Your task to perform on an android device: open app "Facebook Messenger" (install if not already installed) Image 0: 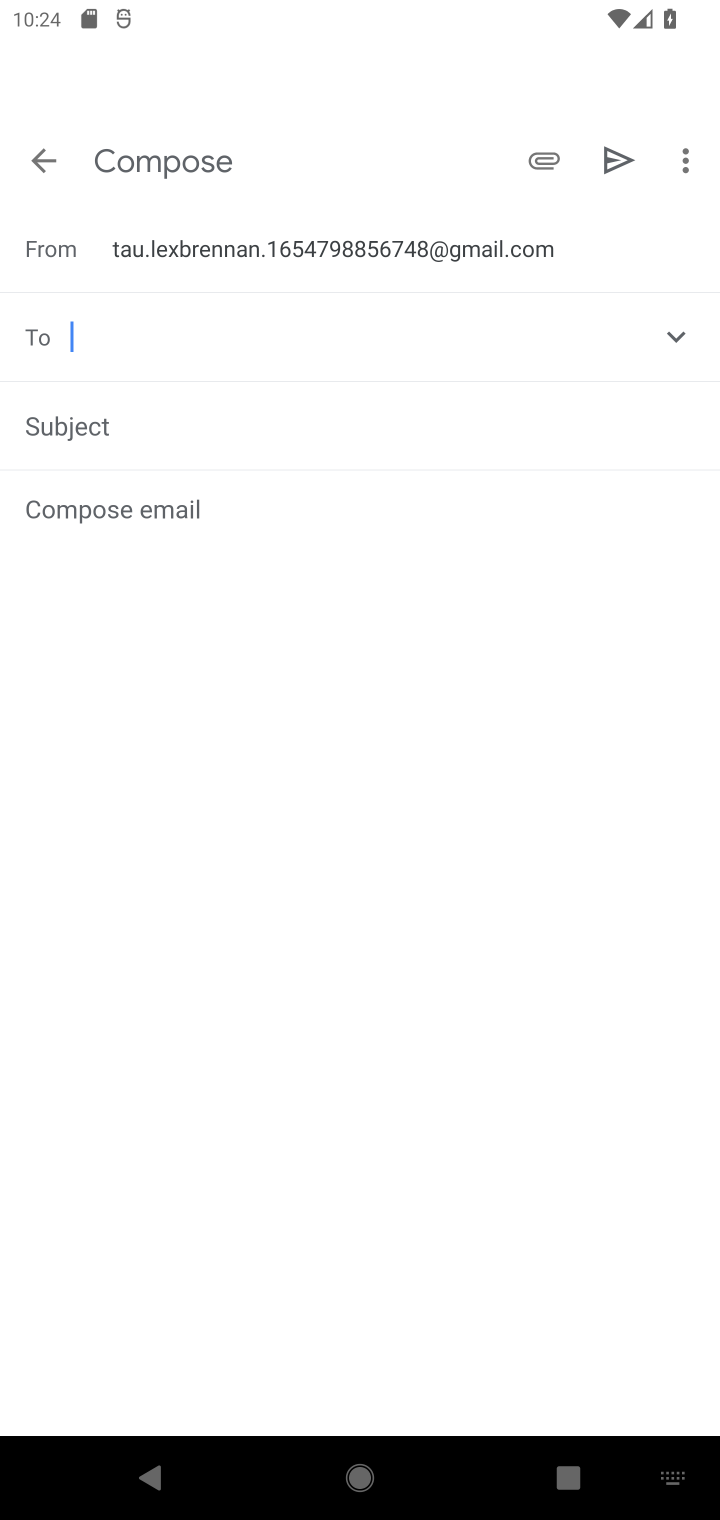
Step 0: press home button
Your task to perform on an android device: open app "Facebook Messenger" (install if not already installed) Image 1: 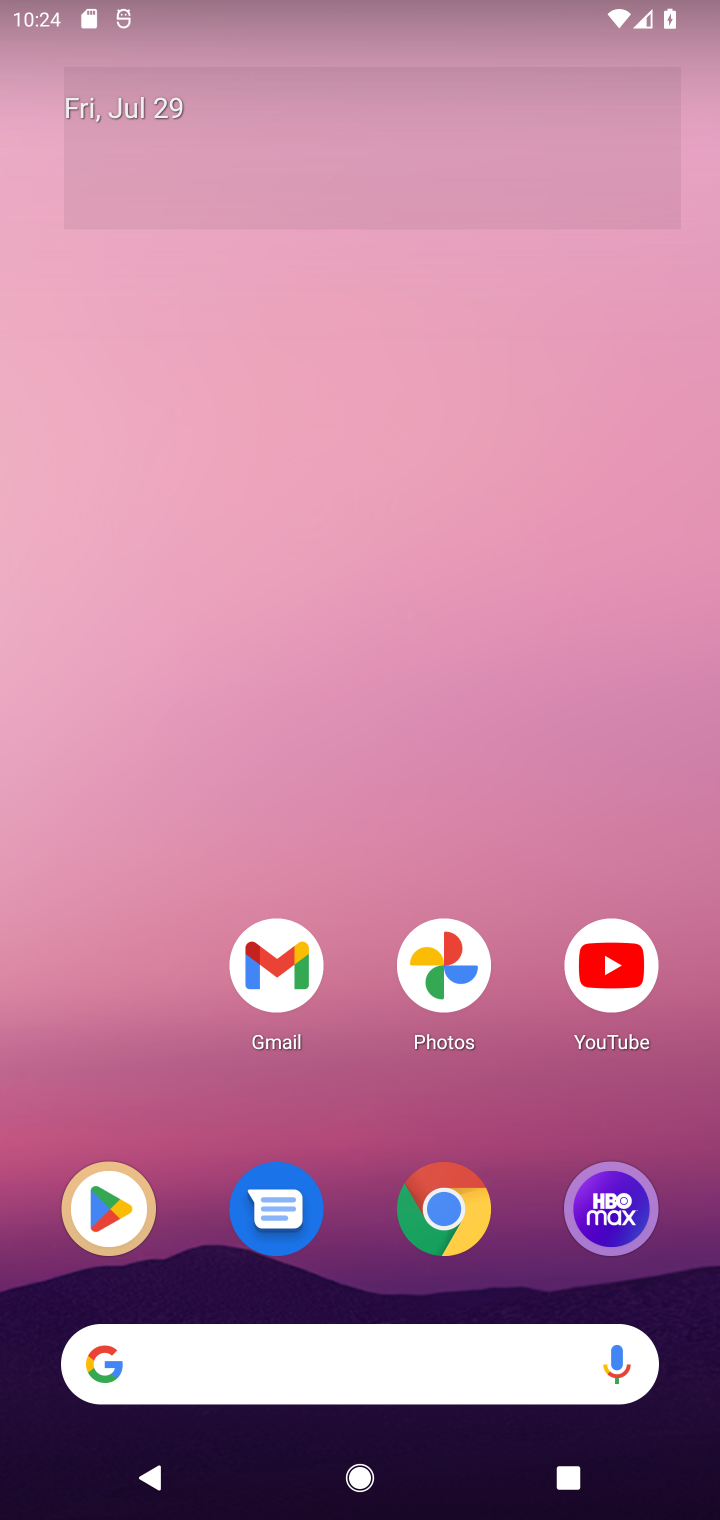
Step 1: drag from (518, 1028) to (541, 71)
Your task to perform on an android device: open app "Facebook Messenger" (install if not already installed) Image 2: 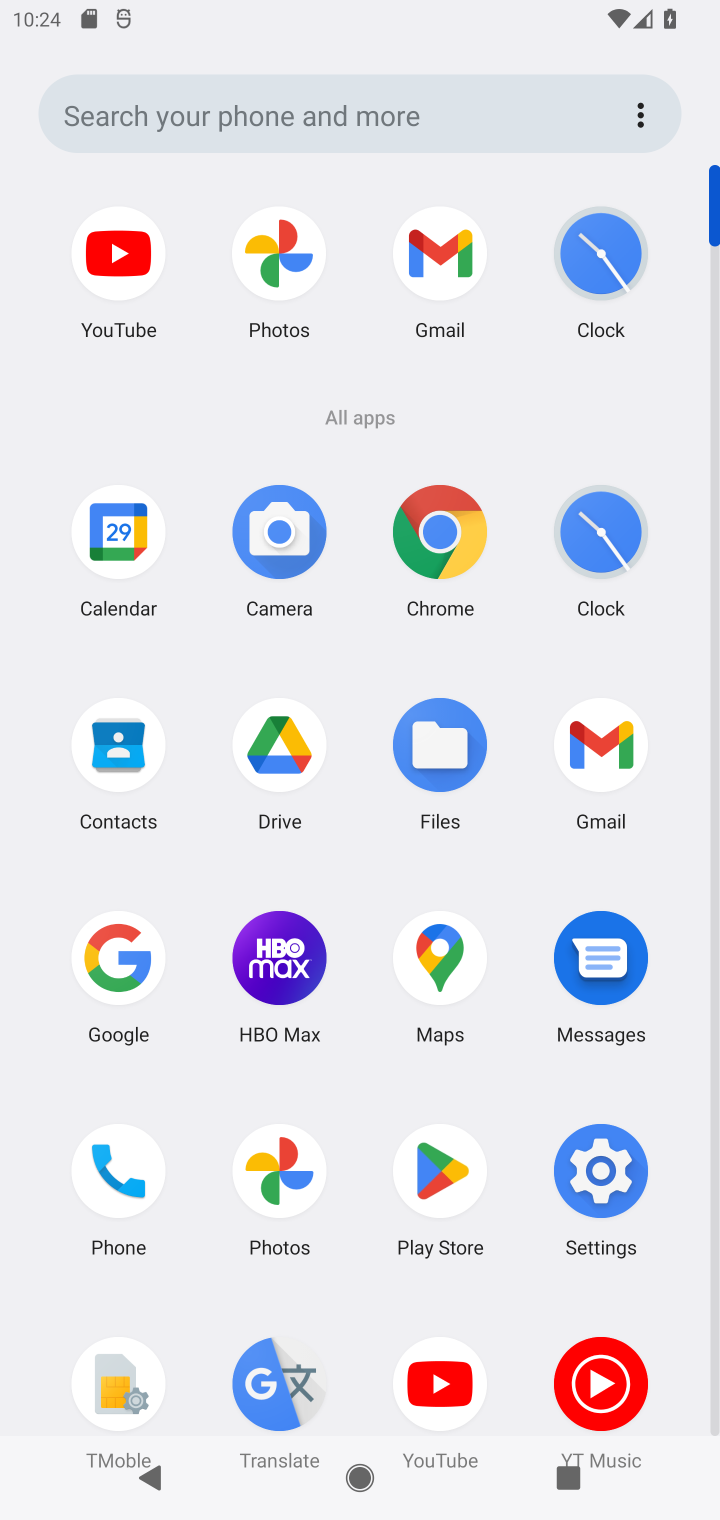
Step 2: click (449, 1154)
Your task to perform on an android device: open app "Facebook Messenger" (install if not already installed) Image 3: 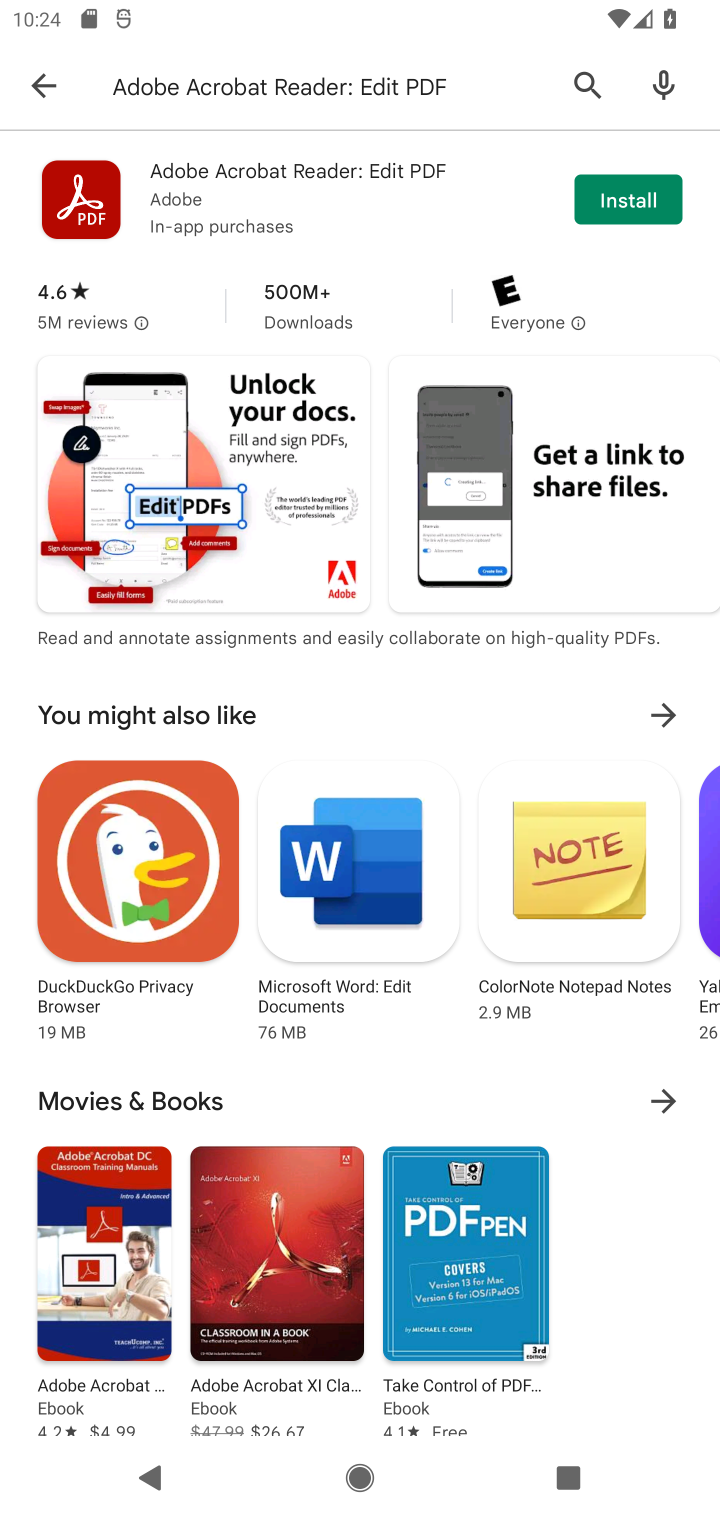
Step 3: click (402, 79)
Your task to perform on an android device: open app "Facebook Messenger" (install if not already installed) Image 4: 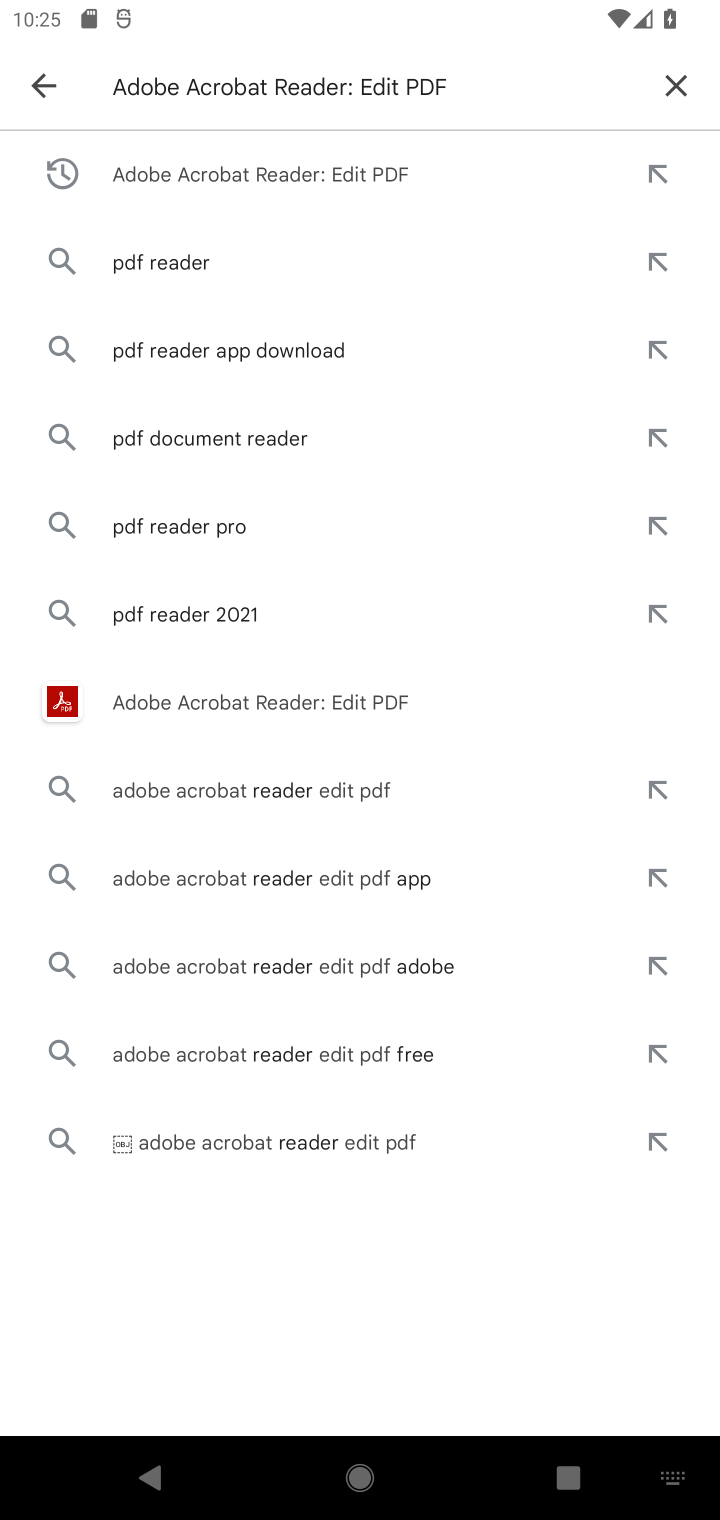
Step 4: click (675, 67)
Your task to perform on an android device: open app "Facebook Messenger" (install if not already installed) Image 5: 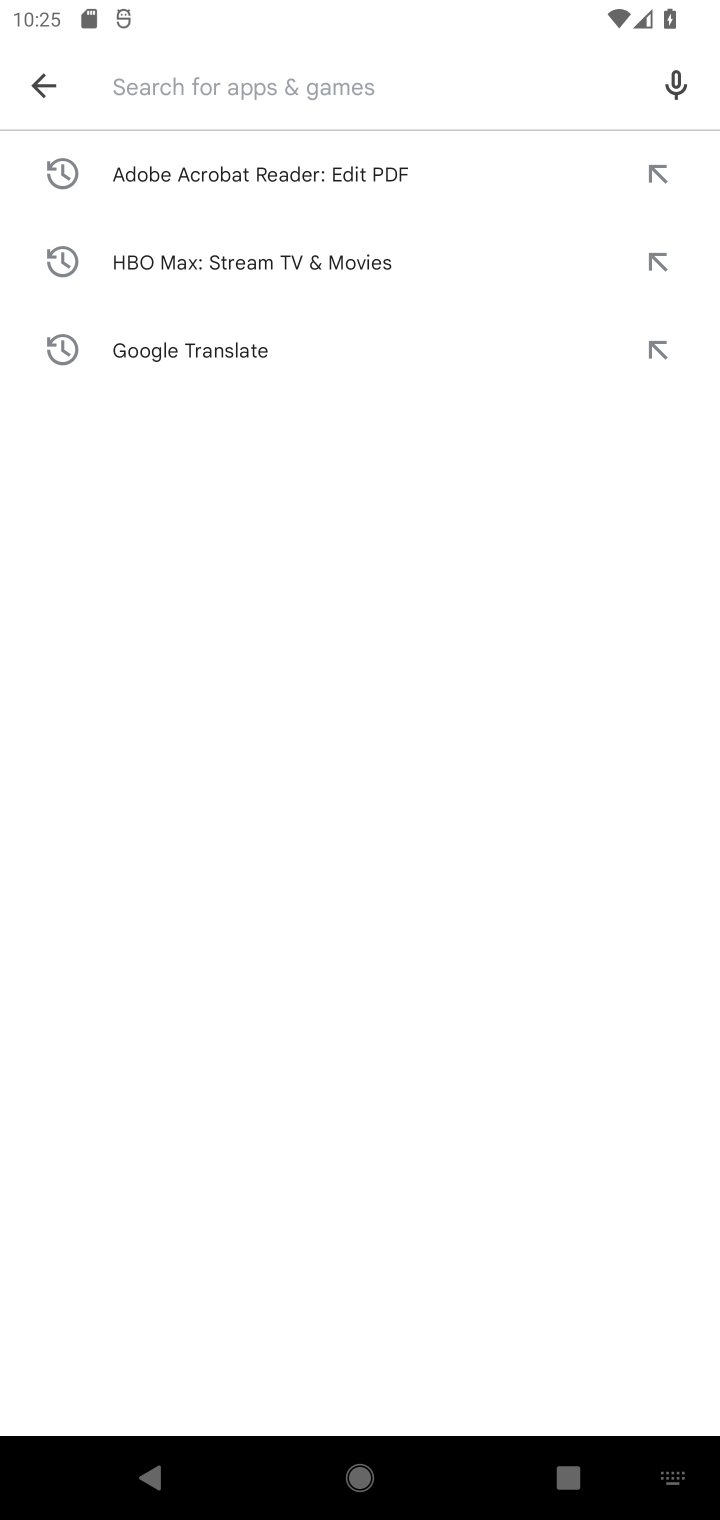
Step 5: type "Facebook Messenger"
Your task to perform on an android device: open app "Facebook Messenger" (install if not already installed) Image 6: 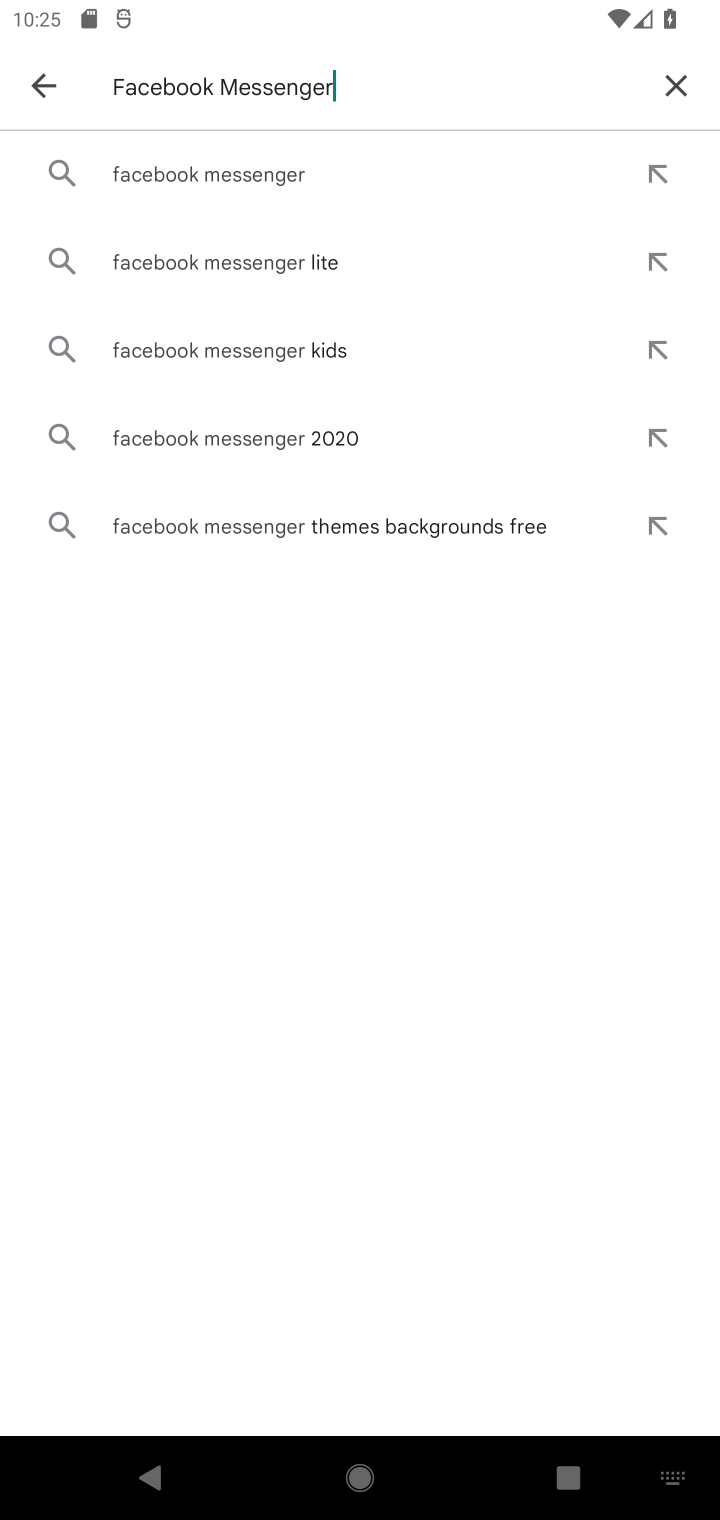
Step 6: press enter
Your task to perform on an android device: open app "Facebook Messenger" (install if not already installed) Image 7: 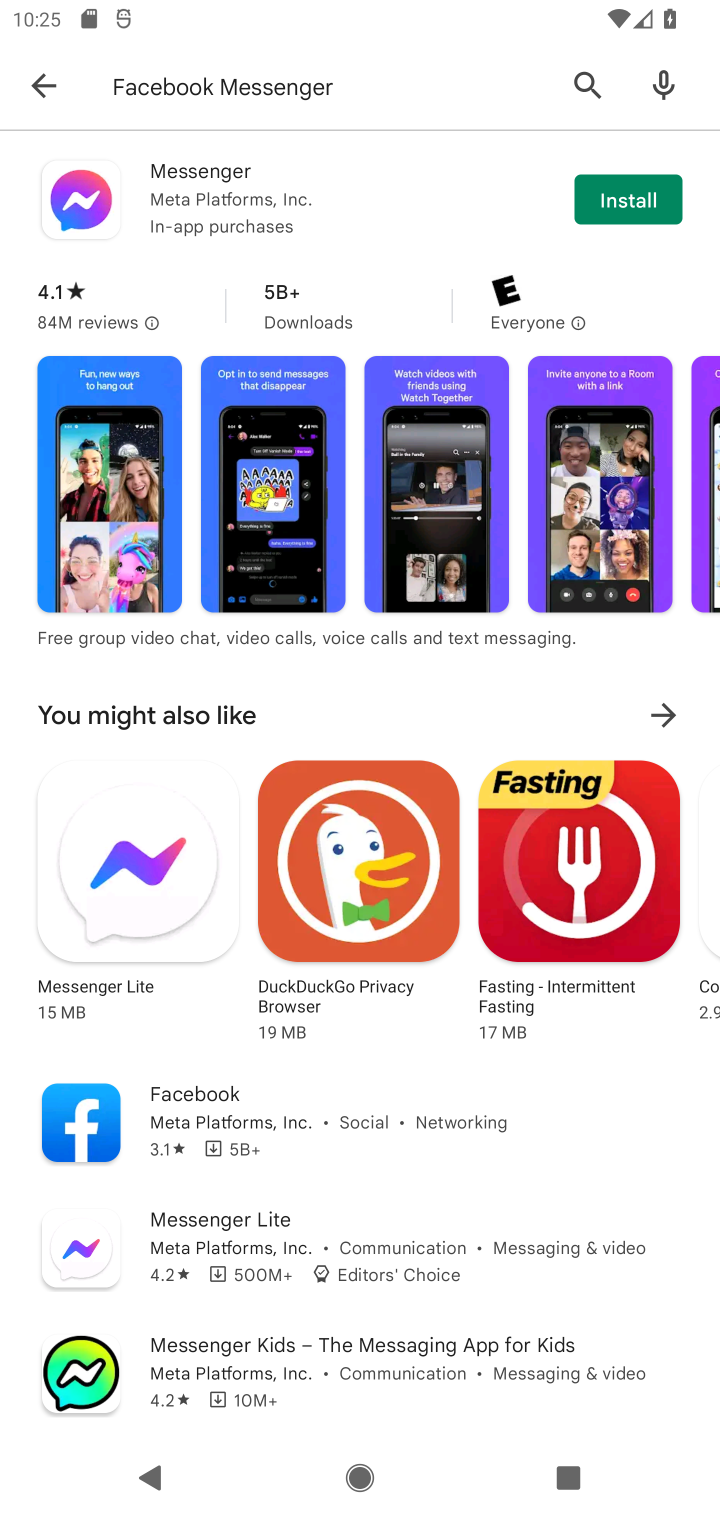
Step 7: click (641, 206)
Your task to perform on an android device: open app "Facebook Messenger" (install if not already installed) Image 8: 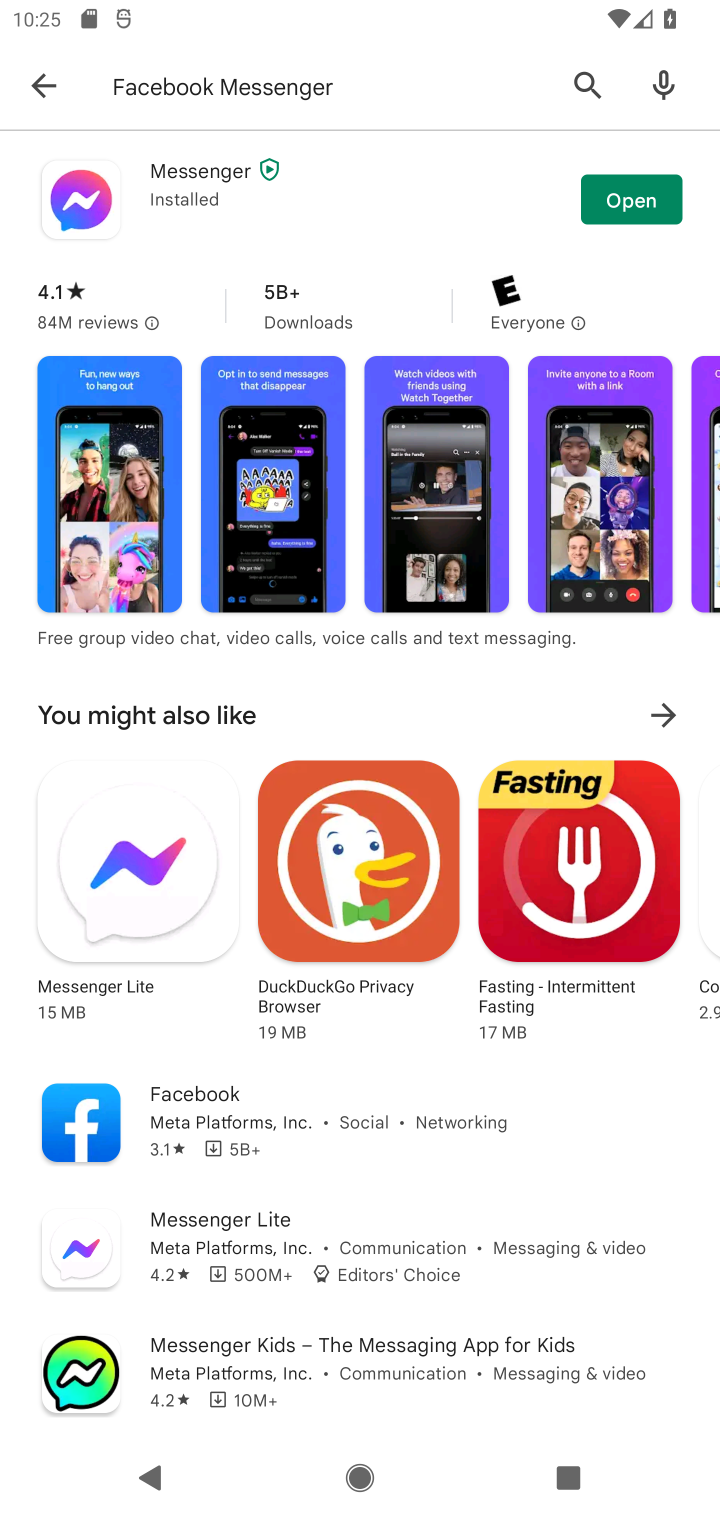
Step 8: click (657, 200)
Your task to perform on an android device: open app "Facebook Messenger" (install if not already installed) Image 9: 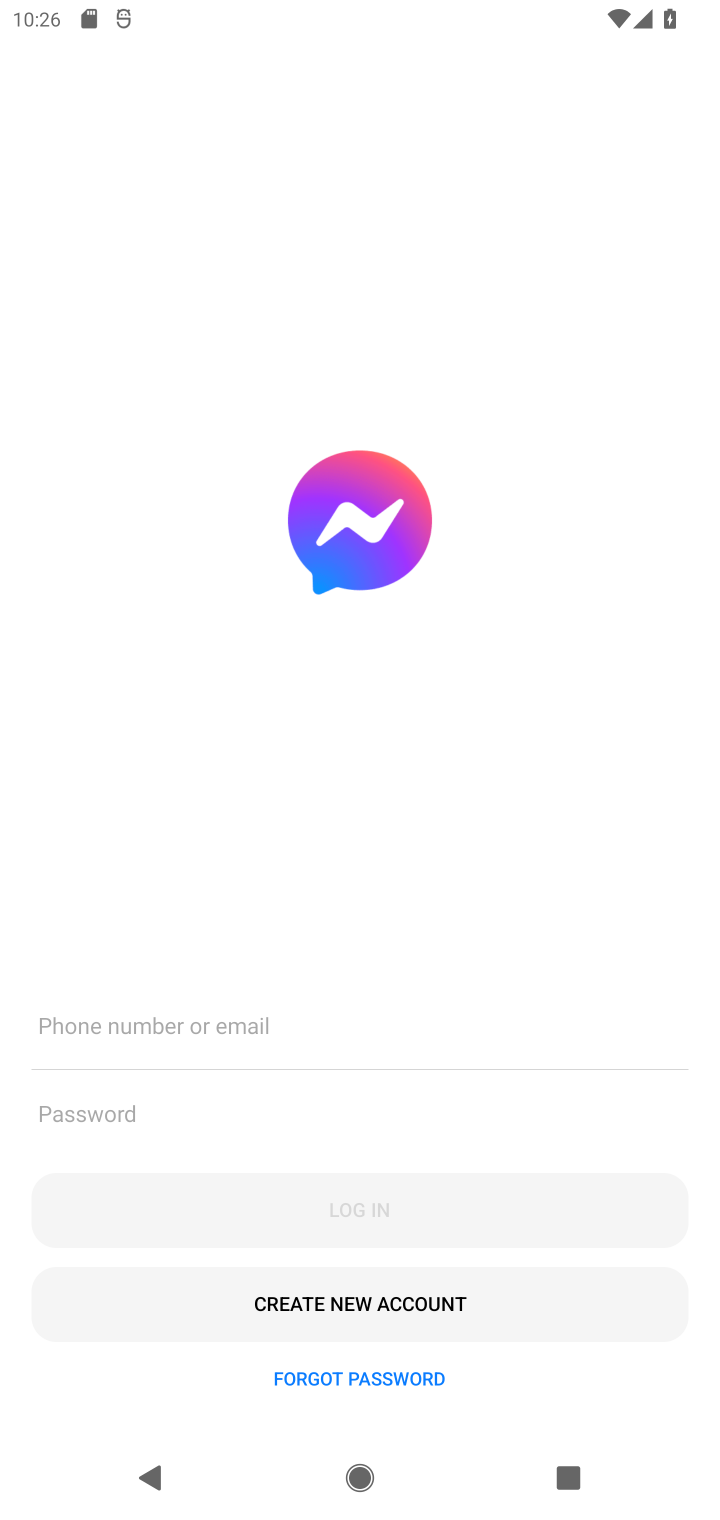
Step 9: task complete